Your task to perform on an android device: toggle airplane mode Image 0: 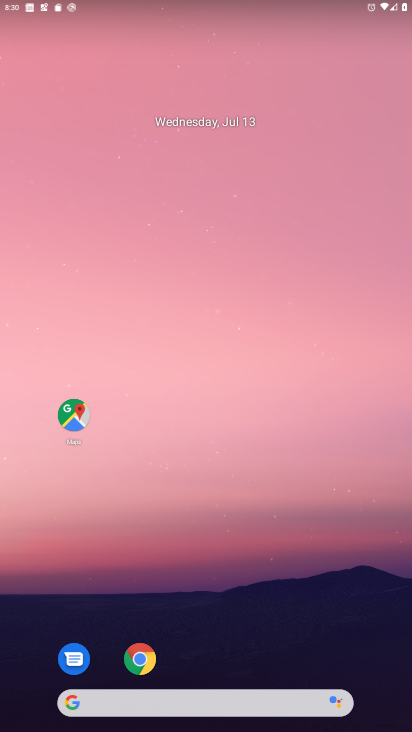
Step 0: drag from (232, 592) to (199, 53)
Your task to perform on an android device: toggle airplane mode Image 1: 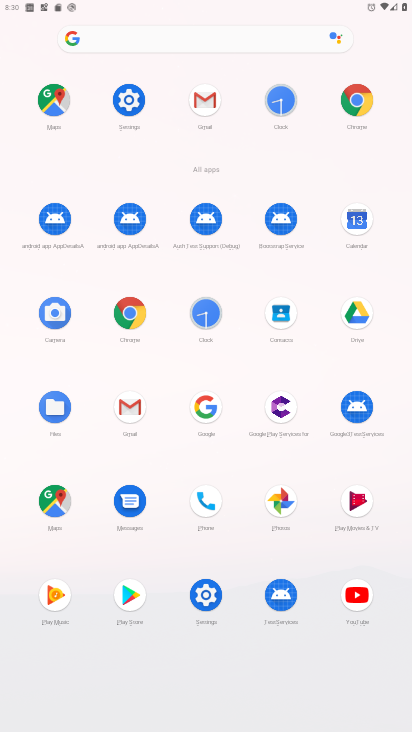
Step 1: click (118, 96)
Your task to perform on an android device: toggle airplane mode Image 2: 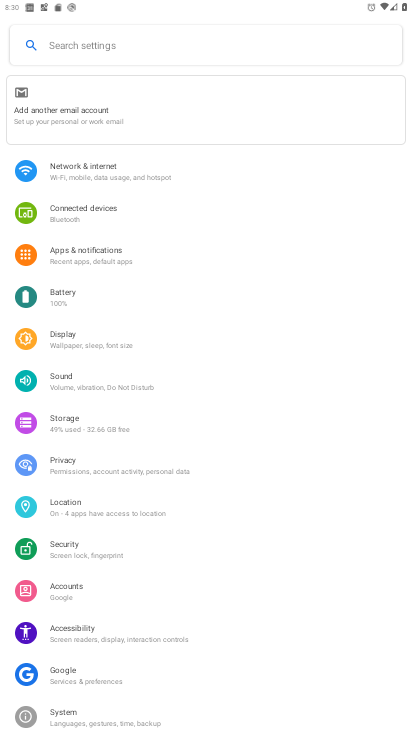
Step 2: click (82, 163)
Your task to perform on an android device: toggle airplane mode Image 3: 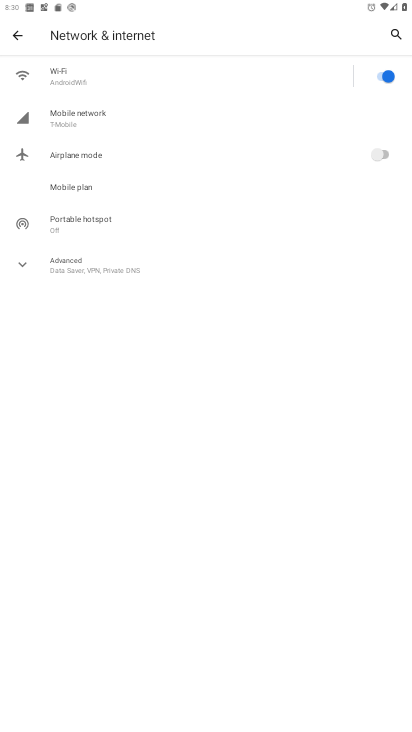
Step 3: click (376, 155)
Your task to perform on an android device: toggle airplane mode Image 4: 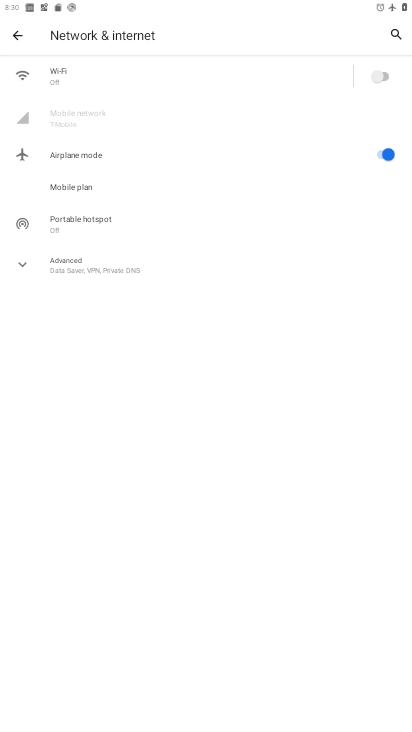
Step 4: task complete